Your task to perform on an android device: Open display settings Image 0: 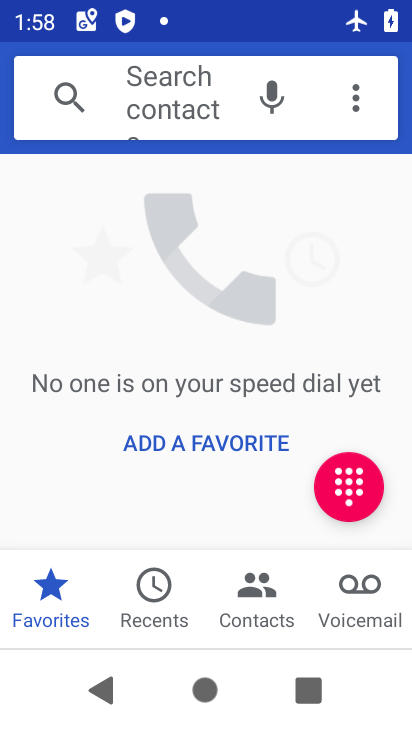
Step 0: press home button
Your task to perform on an android device: Open display settings Image 1: 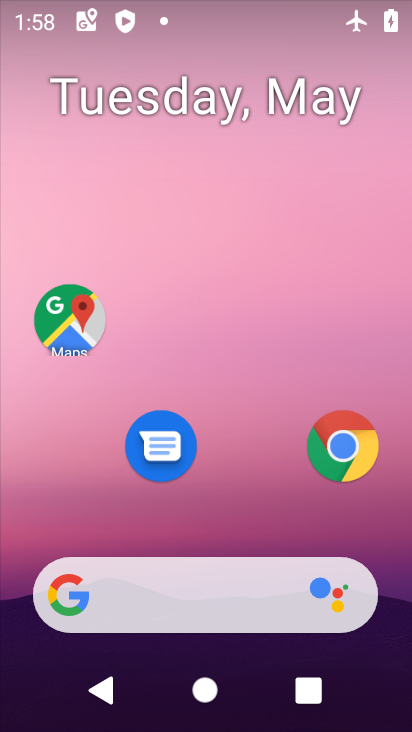
Step 1: drag from (214, 548) to (318, 387)
Your task to perform on an android device: Open display settings Image 2: 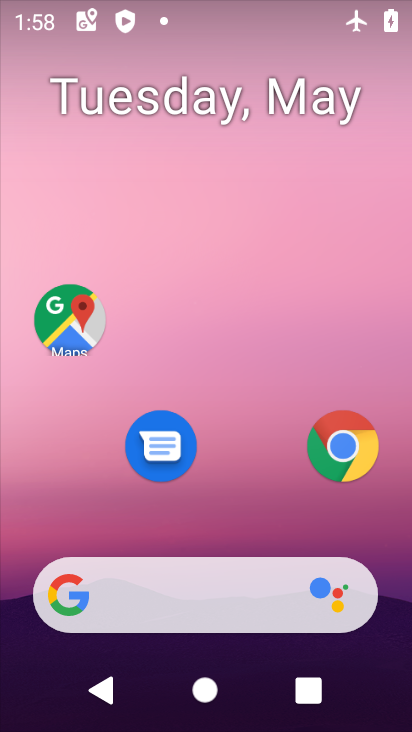
Step 2: drag from (209, 553) to (213, 121)
Your task to perform on an android device: Open display settings Image 3: 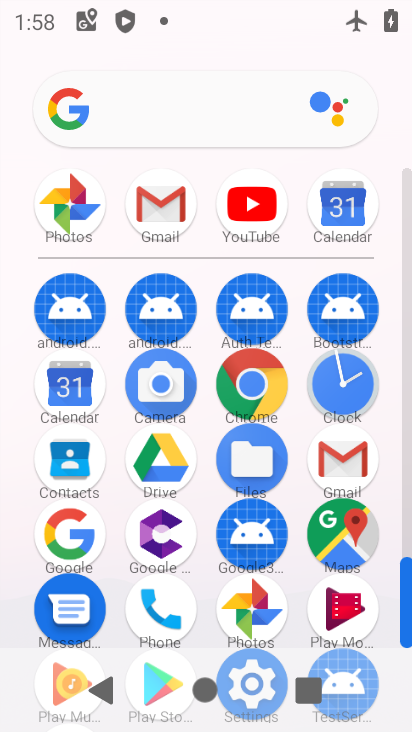
Step 3: click (248, 649)
Your task to perform on an android device: Open display settings Image 4: 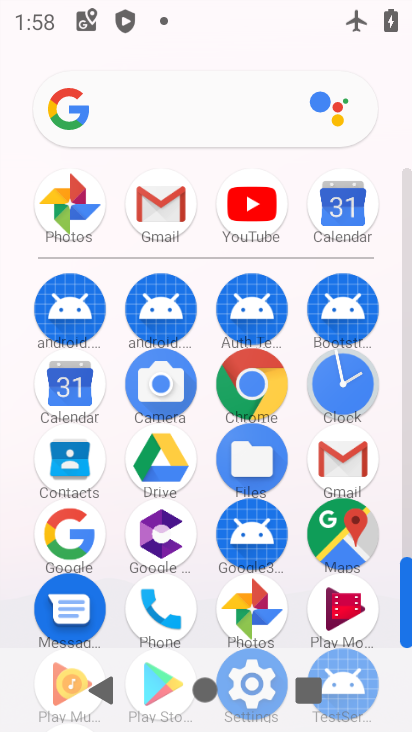
Step 4: drag from (210, 606) to (186, 322)
Your task to perform on an android device: Open display settings Image 5: 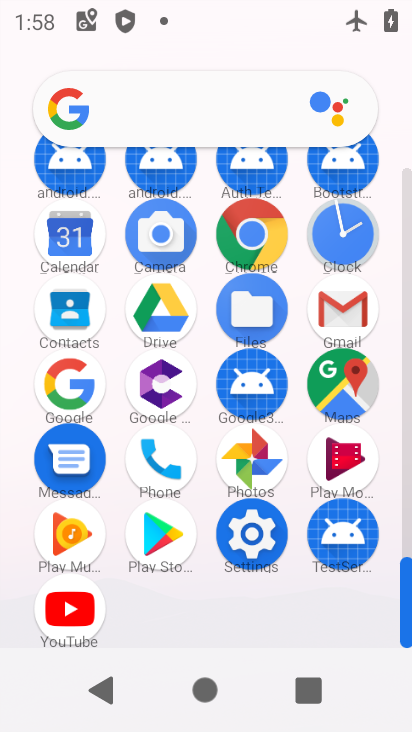
Step 5: click (244, 524)
Your task to perform on an android device: Open display settings Image 6: 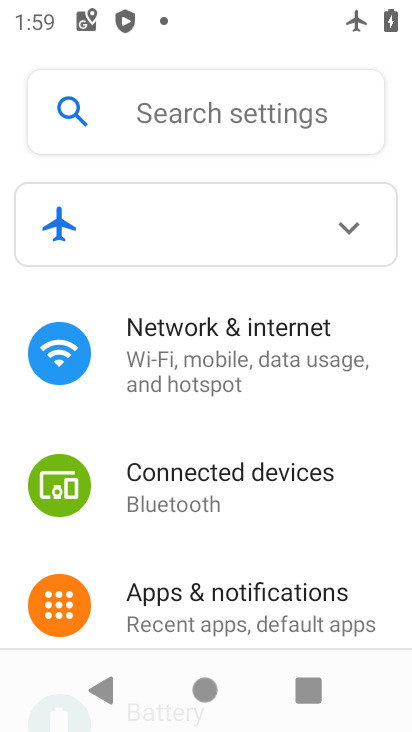
Step 6: drag from (196, 517) to (135, 210)
Your task to perform on an android device: Open display settings Image 7: 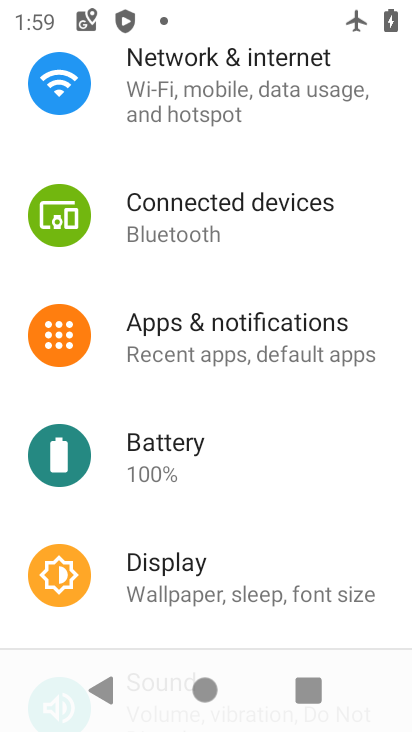
Step 7: click (196, 566)
Your task to perform on an android device: Open display settings Image 8: 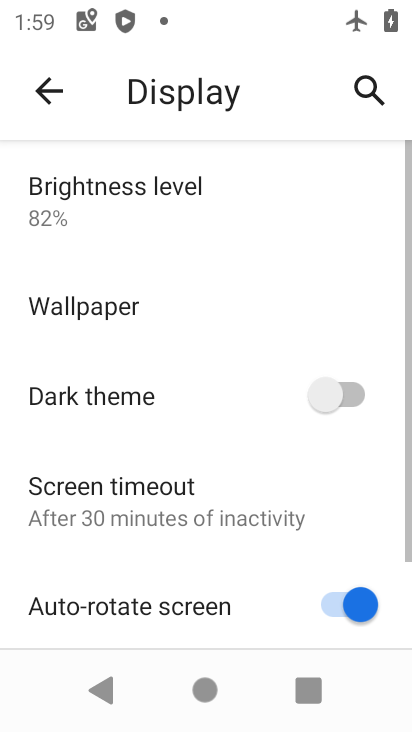
Step 8: task complete